Your task to perform on an android device: Is it going to rain this weekend? Image 0: 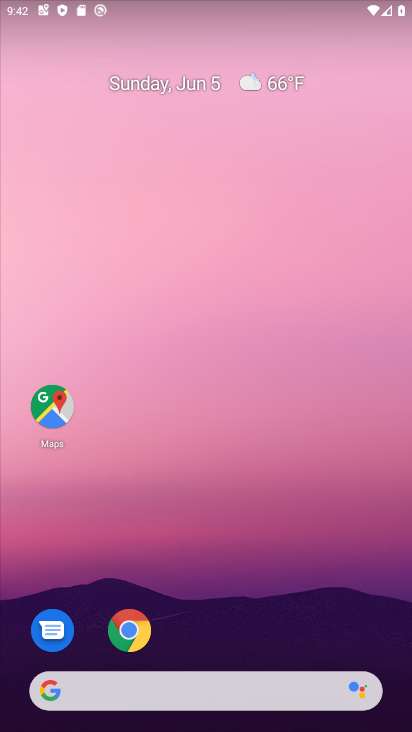
Step 0: drag from (202, 718) to (199, 104)
Your task to perform on an android device: Is it going to rain this weekend? Image 1: 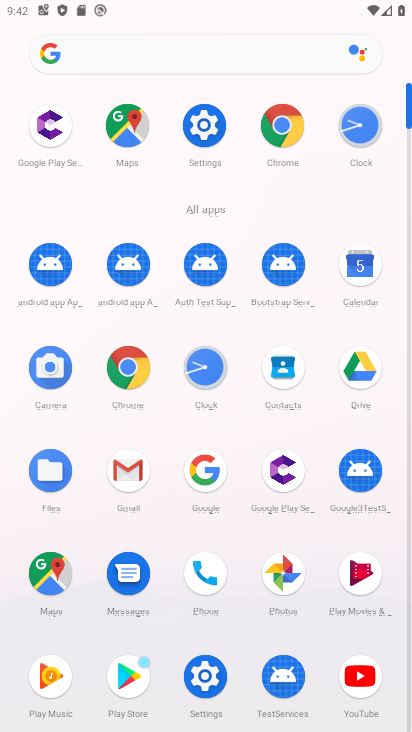
Step 1: click (210, 471)
Your task to perform on an android device: Is it going to rain this weekend? Image 2: 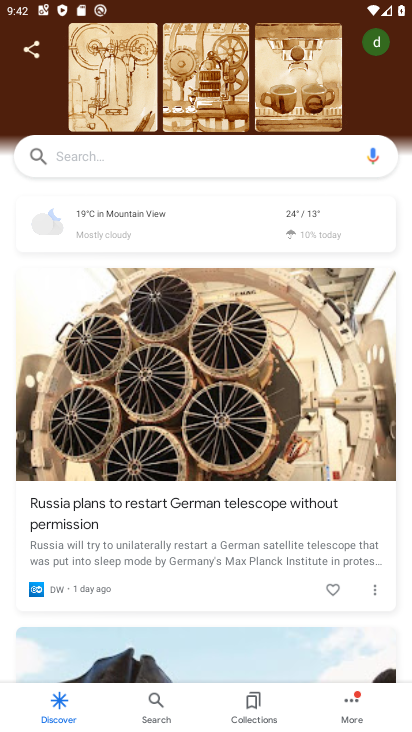
Step 2: click (141, 222)
Your task to perform on an android device: Is it going to rain this weekend? Image 3: 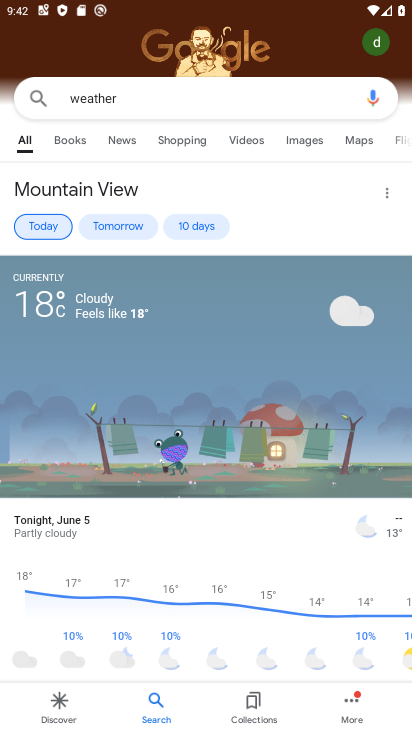
Step 3: click (202, 220)
Your task to perform on an android device: Is it going to rain this weekend? Image 4: 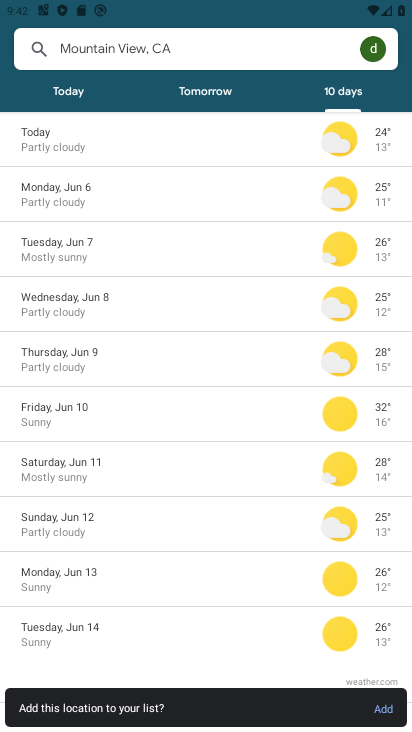
Step 4: click (61, 464)
Your task to perform on an android device: Is it going to rain this weekend? Image 5: 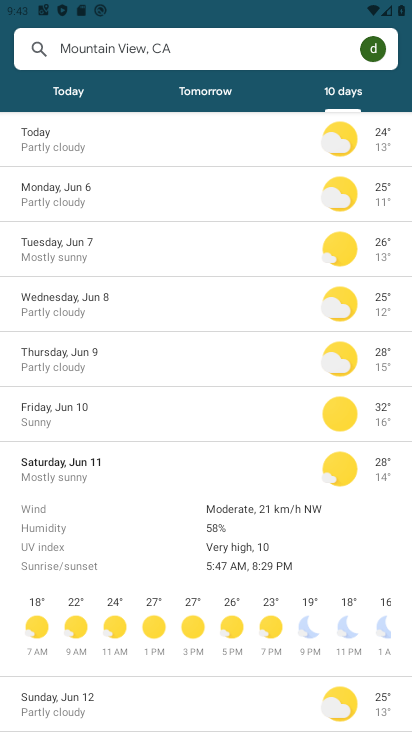
Step 5: task complete